Your task to perform on an android device: What is the news today? Image 0: 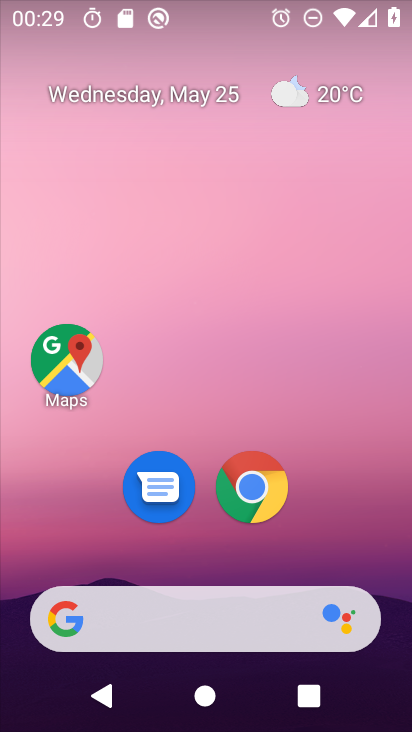
Step 0: click (107, 622)
Your task to perform on an android device: What is the news today? Image 1: 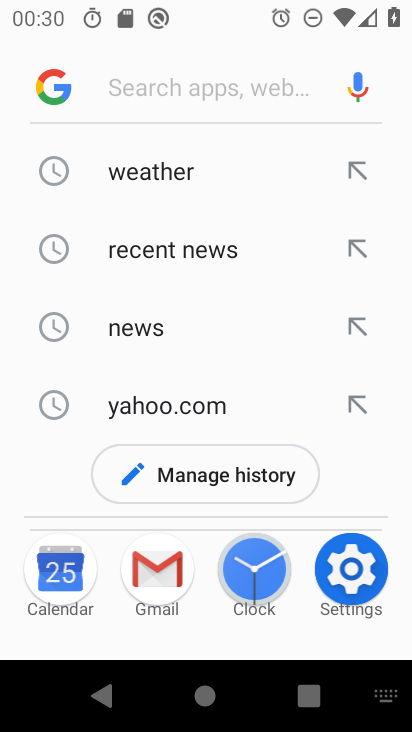
Step 1: type "news today"
Your task to perform on an android device: What is the news today? Image 2: 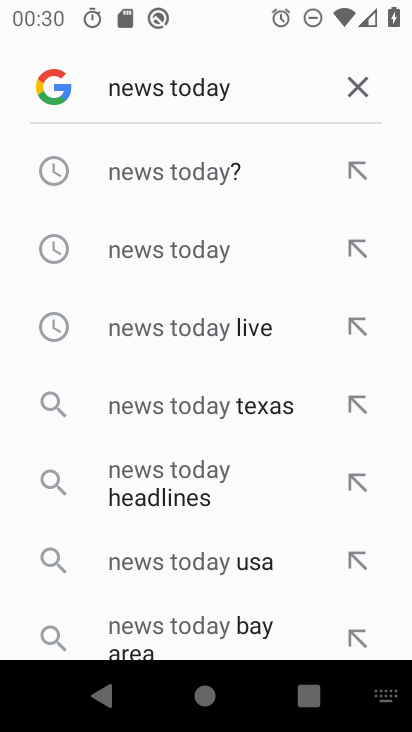
Step 2: click (165, 250)
Your task to perform on an android device: What is the news today? Image 3: 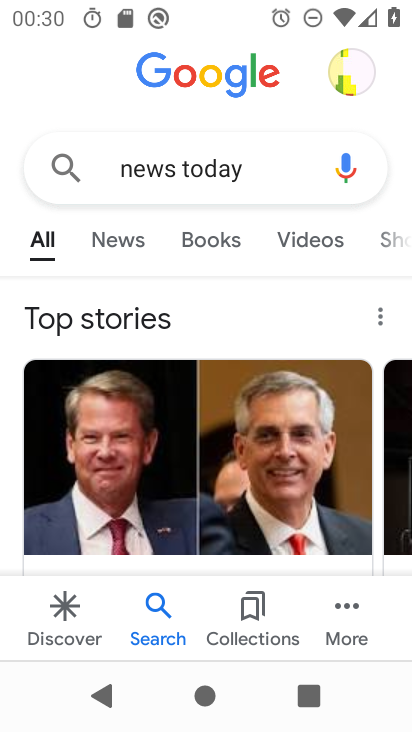
Step 3: click (117, 248)
Your task to perform on an android device: What is the news today? Image 4: 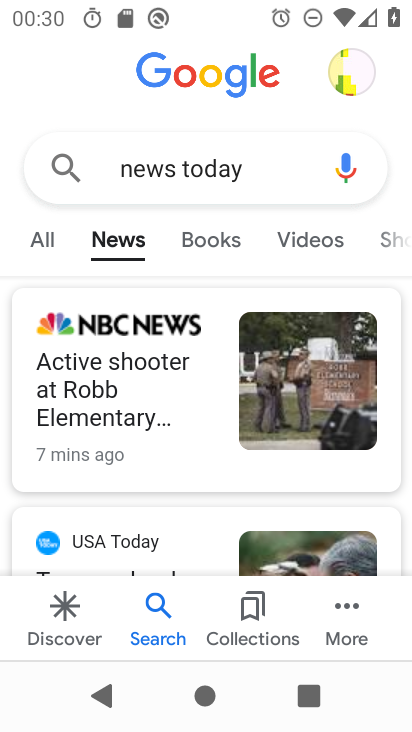
Step 4: drag from (151, 504) to (165, 287)
Your task to perform on an android device: What is the news today? Image 5: 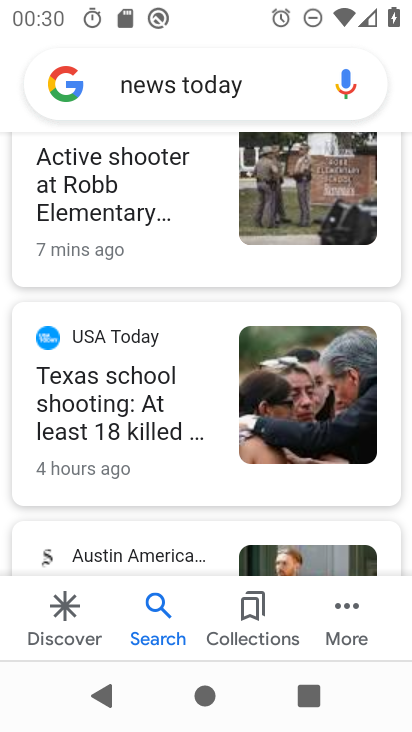
Step 5: click (88, 231)
Your task to perform on an android device: What is the news today? Image 6: 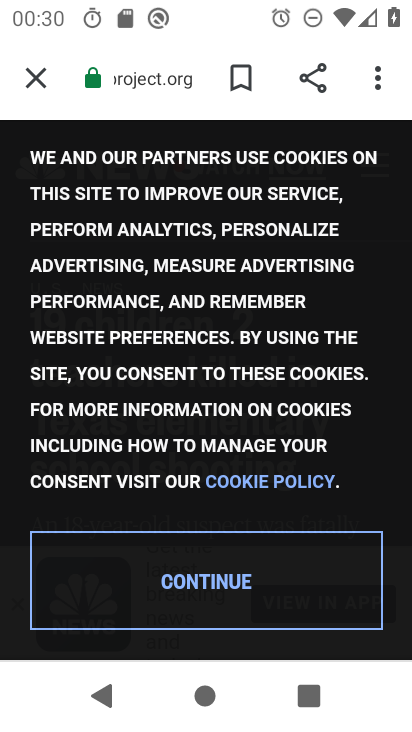
Step 6: task complete